Your task to perform on an android device: Open Youtube and go to "Your channel" Image 0: 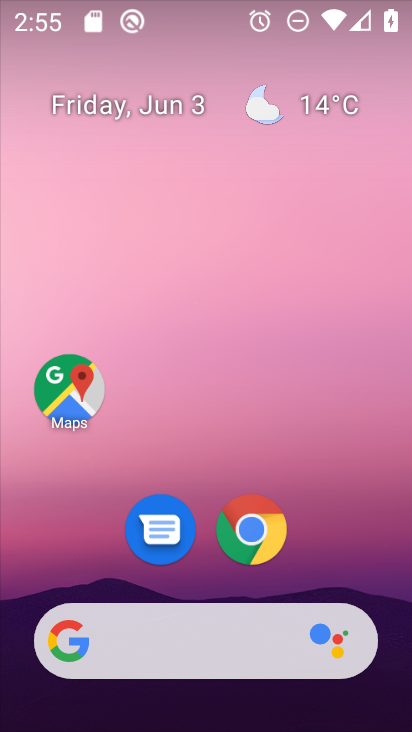
Step 0: drag from (379, 577) to (375, 231)
Your task to perform on an android device: Open Youtube and go to "Your channel" Image 1: 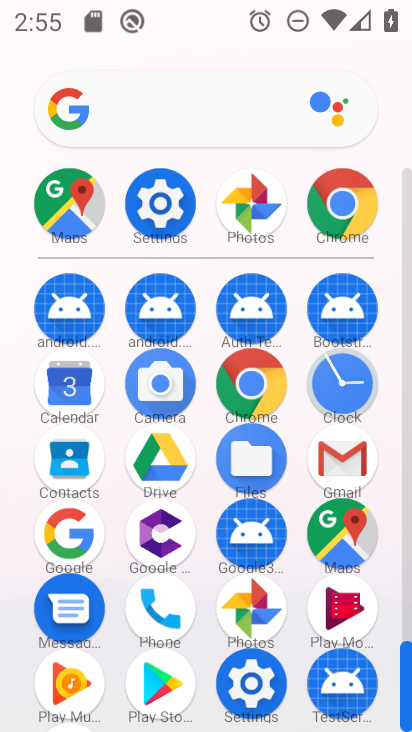
Step 1: click (351, 526)
Your task to perform on an android device: Open Youtube and go to "Your channel" Image 2: 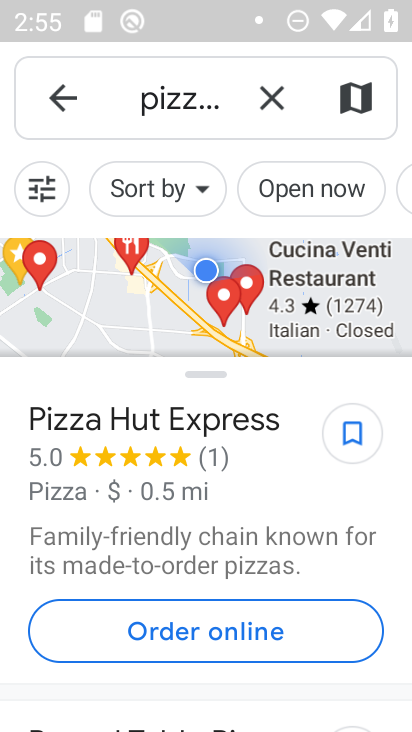
Step 2: press back button
Your task to perform on an android device: Open Youtube and go to "Your channel" Image 3: 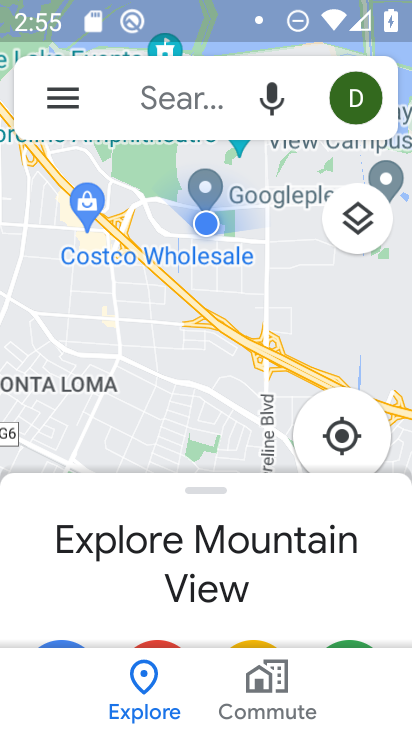
Step 3: click (77, 107)
Your task to perform on an android device: Open Youtube and go to "Your channel" Image 4: 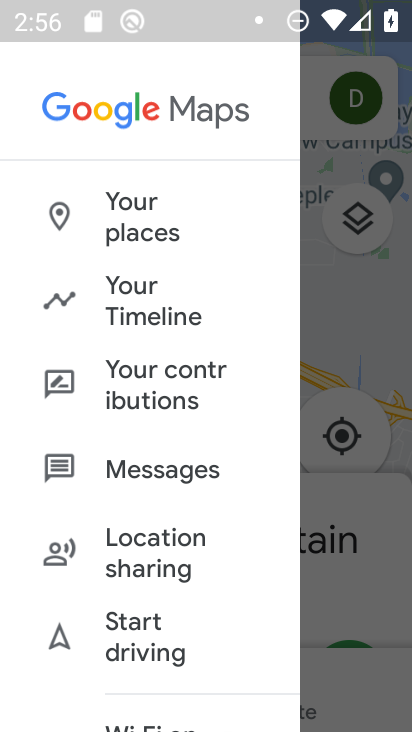
Step 4: drag from (249, 470) to (246, 298)
Your task to perform on an android device: Open Youtube and go to "Your channel" Image 5: 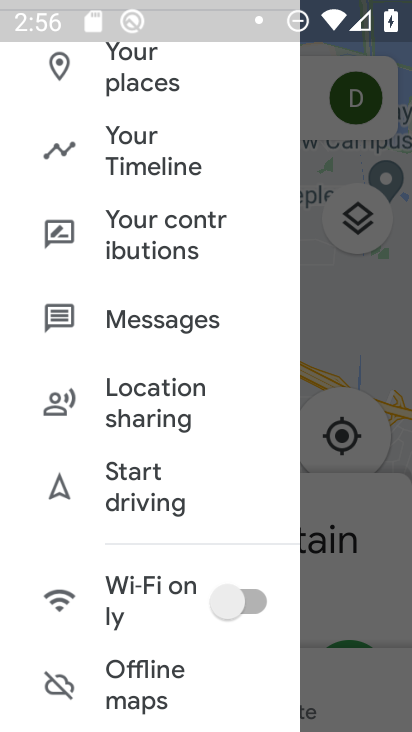
Step 5: drag from (261, 468) to (255, 294)
Your task to perform on an android device: Open Youtube and go to "Your channel" Image 6: 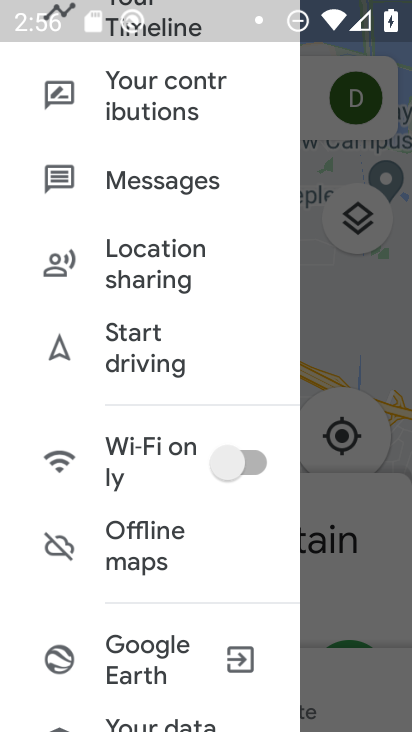
Step 6: drag from (238, 534) to (245, 368)
Your task to perform on an android device: Open Youtube and go to "Your channel" Image 7: 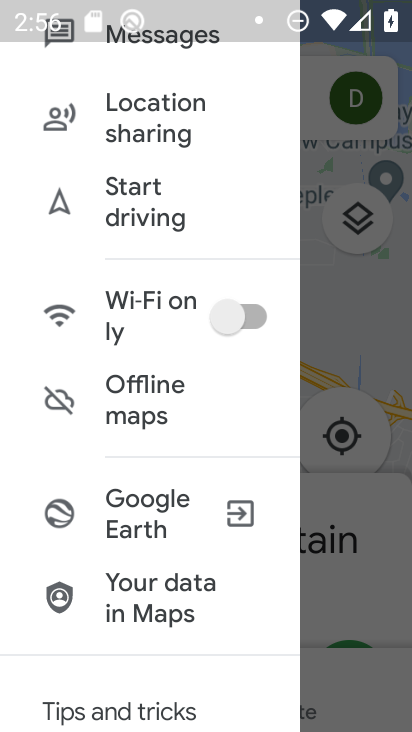
Step 7: drag from (232, 581) to (231, 394)
Your task to perform on an android device: Open Youtube and go to "Your channel" Image 8: 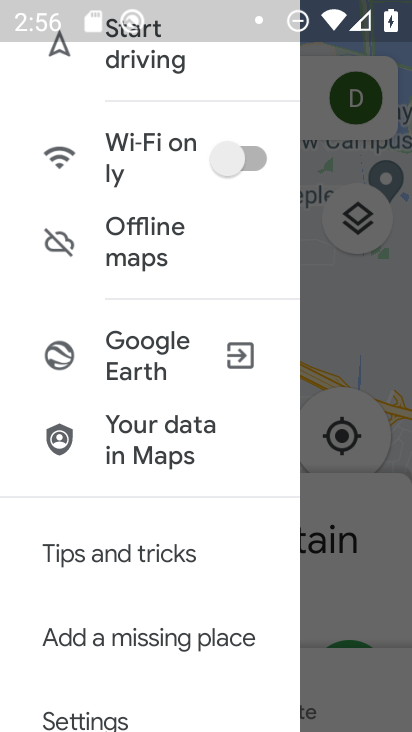
Step 8: drag from (223, 292) to (237, 446)
Your task to perform on an android device: Open Youtube and go to "Your channel" Image 9: 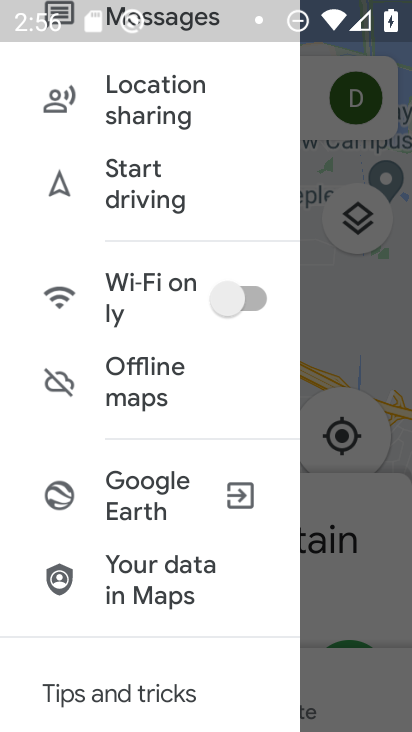
Step 9: drag from (228, 193) to (235, 371)
Your task to perform on an android device: Open Youtube and go to "Your channel" Image 10: 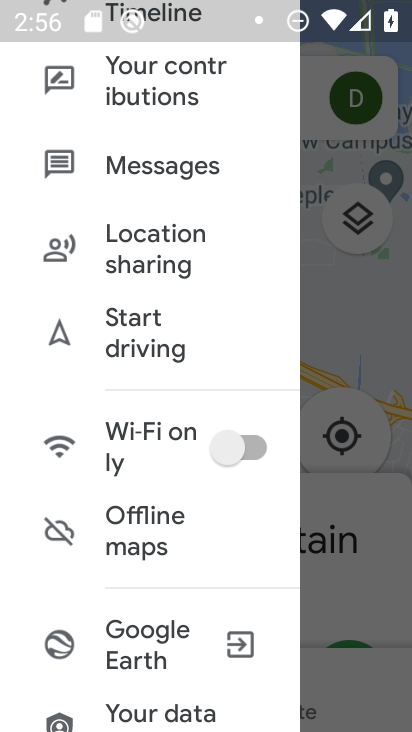
Step 10: drag from (245, 187) to (238, 345)
Your task to perform on an android device: Open Youtube and go to "Your channel" Image 11: 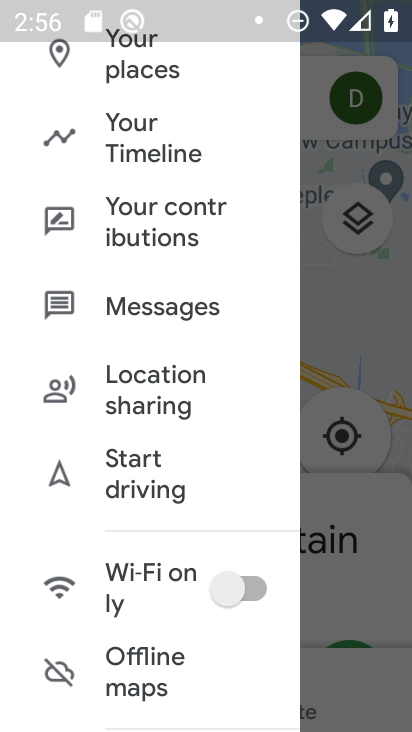
Step 11: drag from (235, 142) to (239, 332)
Your task to perform on an android device: Open Youtube and go to "Your channel" Image 12: 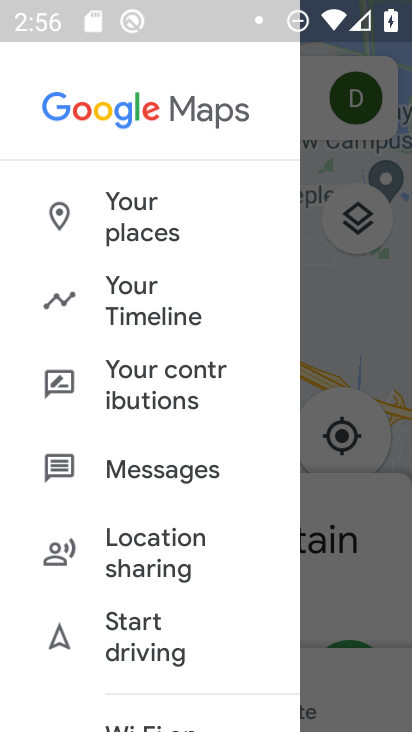
Step 12: press back button
Your task to perform on an android device: Open Youtube and go to "Your channel" Image 13: 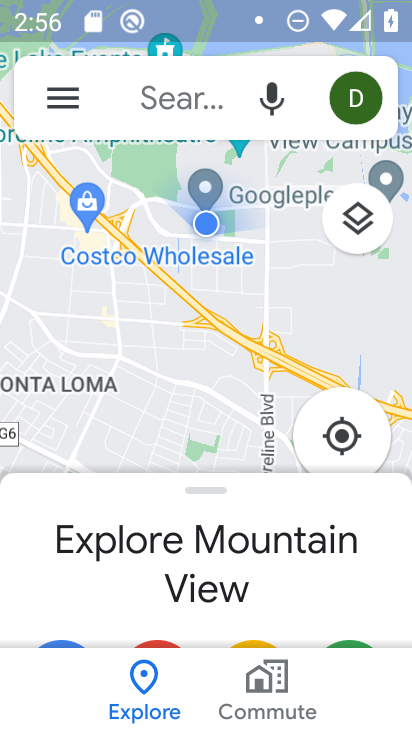
Step 13: press back button
Your task to perform on an android device: Open Youtube and go to "Your channel" Image 14: 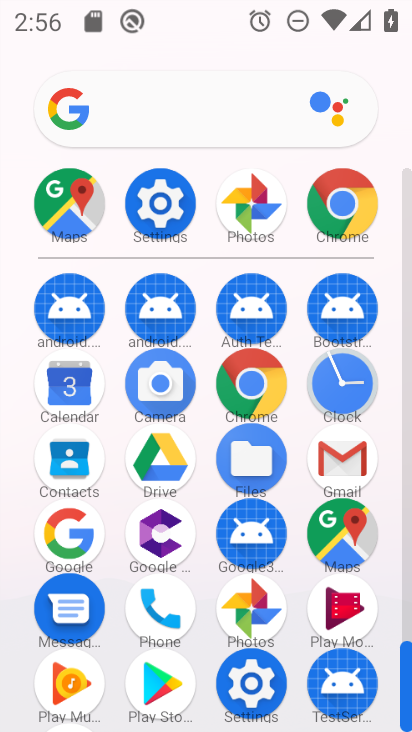
Step 14: drag from (380, 572) to (388, 359)
Your task to perform on an android device: Open Youtube and go to "Your channel" Image 15: 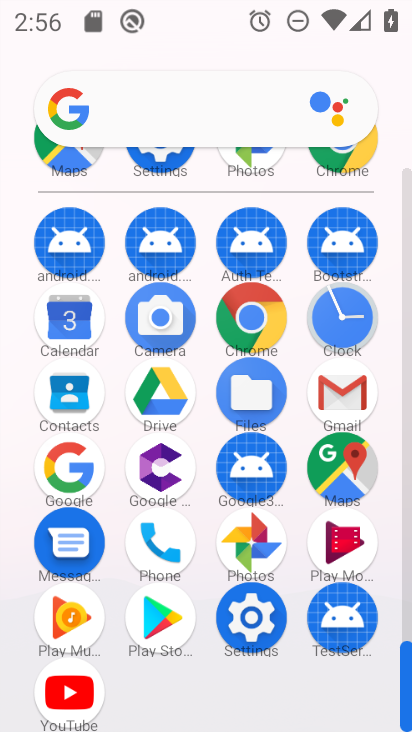
Step 15: click (75, 693)
Your task to perform on an android device: Open Youtube and go to "Your channel" Image 16: 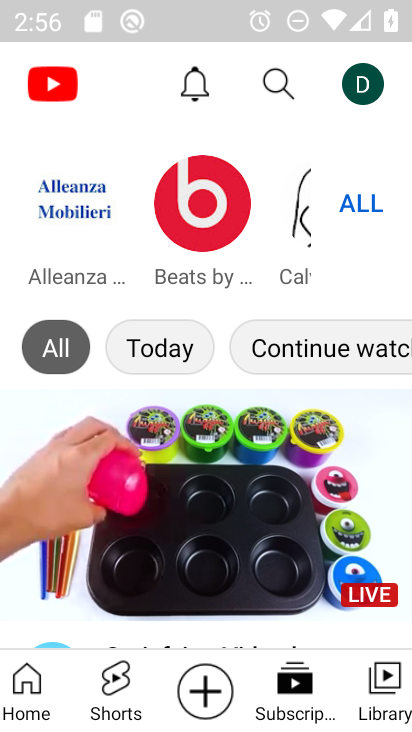
Step 16: click (367, 99)
Your task to perform on an android device: Open Youtube and go to "Your channel" Image 17: 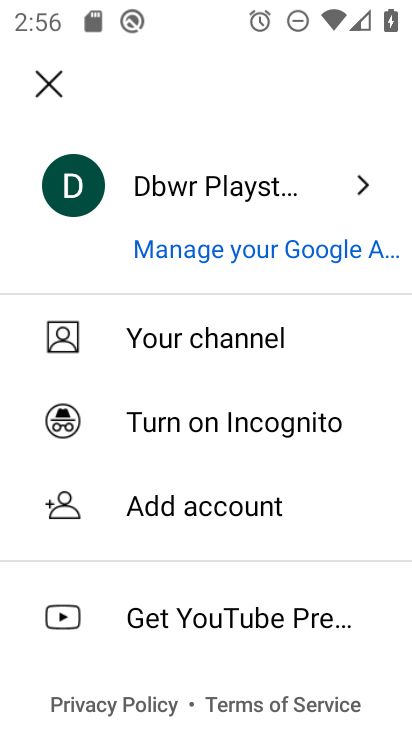
Step 17: click (248, 347)
Your task to perform on an android device: Open Youtube and go to "Your channel" Image 18: 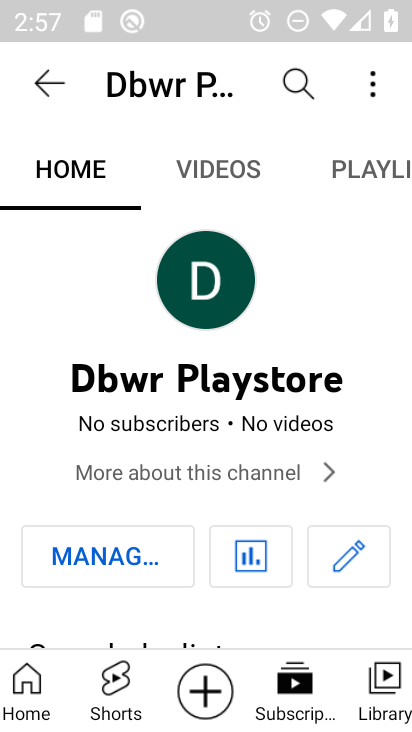
Step 18: task complete